Your task to perform on an android device: turn pop-ups on in chrome Image 0: 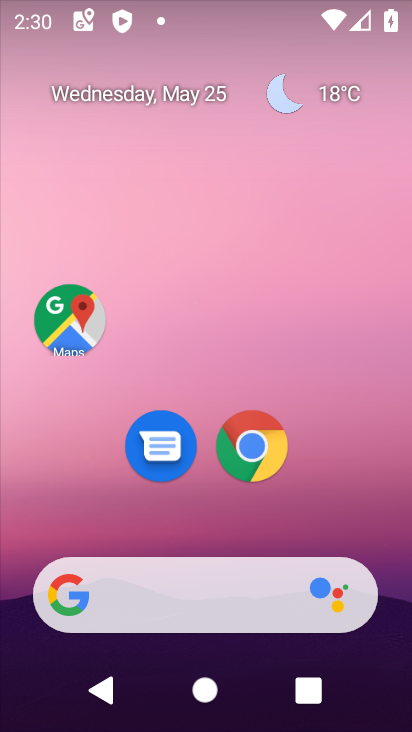
Step 0: click (266, 462)
Your task to perform on an android device: turn pop-ups on in chrome Image 1: 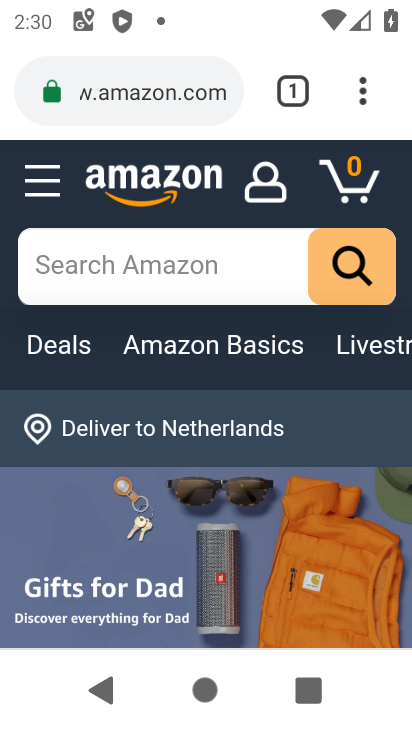
Step 1: click (355, 85)
Your task to perform on an android device: turn pop-ups on in chrome Image 2: 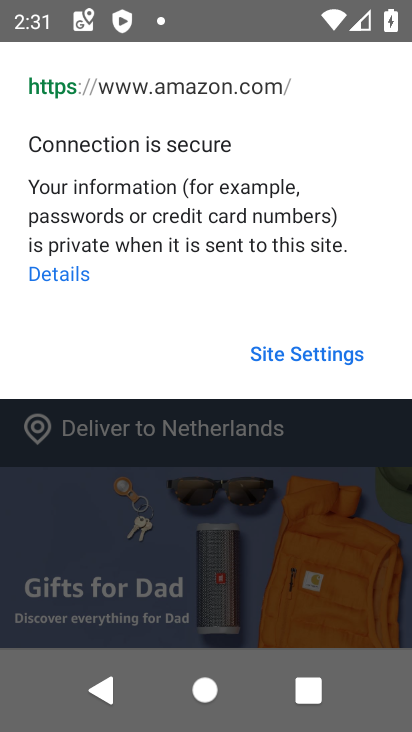
Step 2: click (314, 510)
Your task to perform on an android device: turn pop-ups on in chrome Image 3: 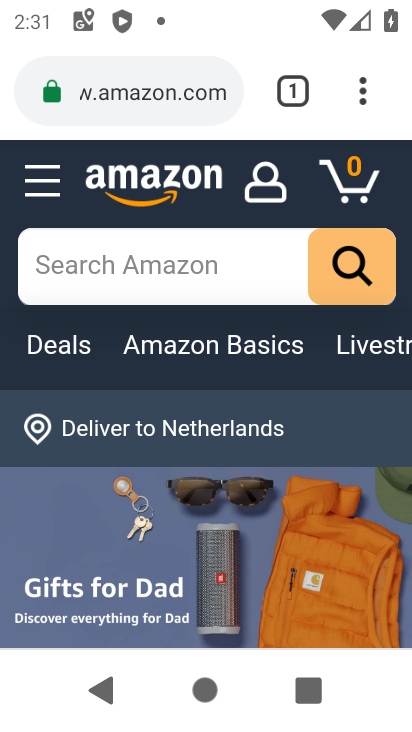
Step 3: drag from (369, 86) to (134, 487)
Your task to perform on an android device: turn pop-ups on in chrome Image 4: 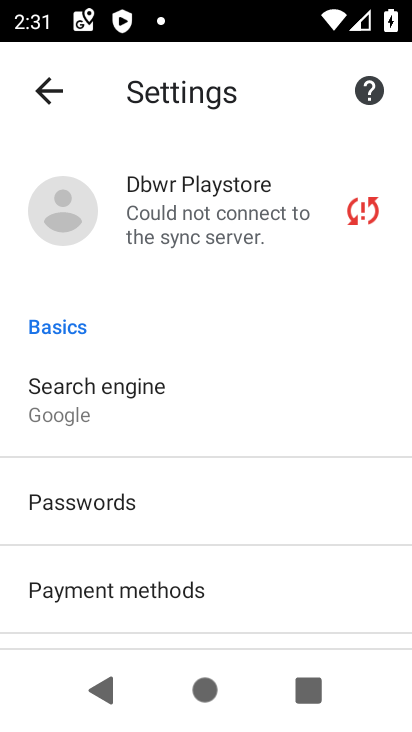
Step 4: drag from (134, 487) to (113, 185)
Your task to perform on an android device: turn pop-ups on in chrome Image 5: 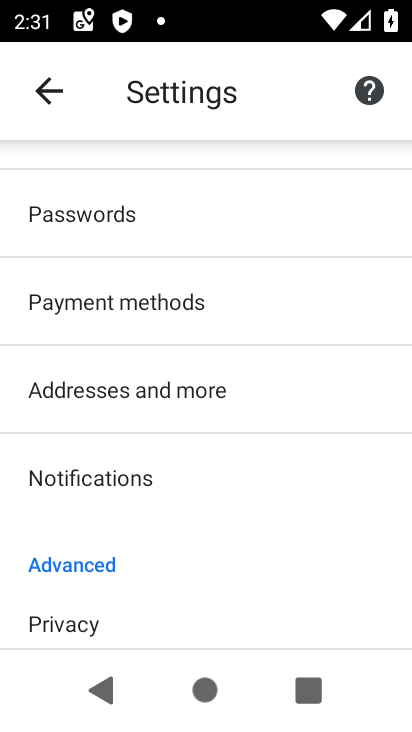
Step 5: drag from (231, 565) to (263, 160)
Your task to perform on an android device: turn pop-ups on in chrome Image 6: 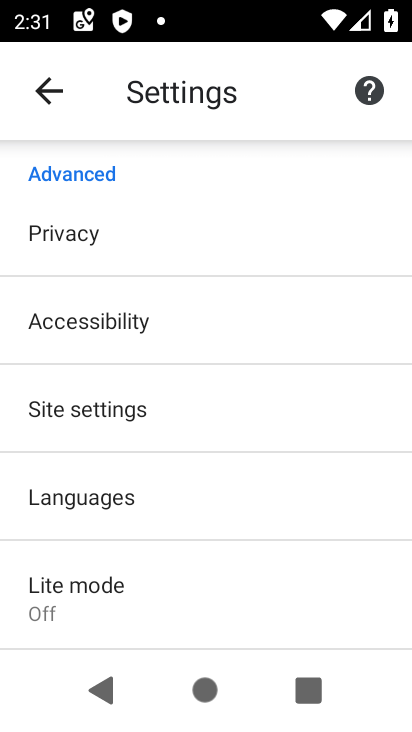
Step 6: click (162, 432)
Your task to perform on an android device: turn pop-ups on in chrome Image 7: 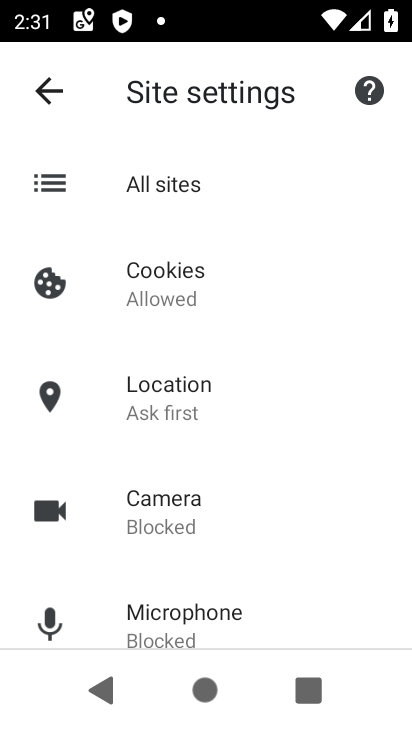
Step 7: drag from (211, 569) to (263, 26)
Your task to perform on an android device: turn pop-ups on in chrome Image 8: 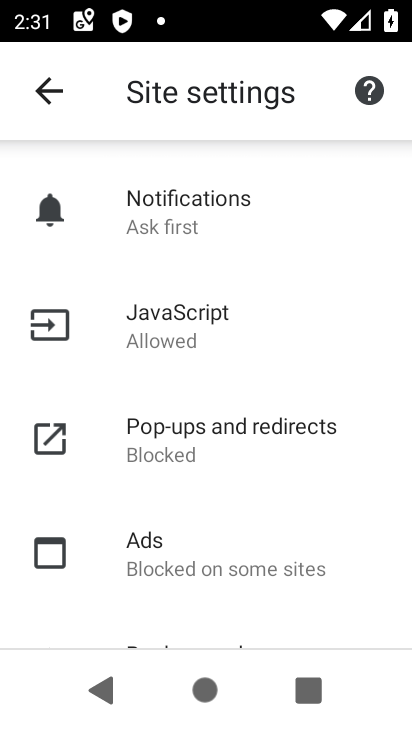
Step 8: click (201, 420)
Your task to perform on an android device: turn pop-ups on in chrome Image 9: 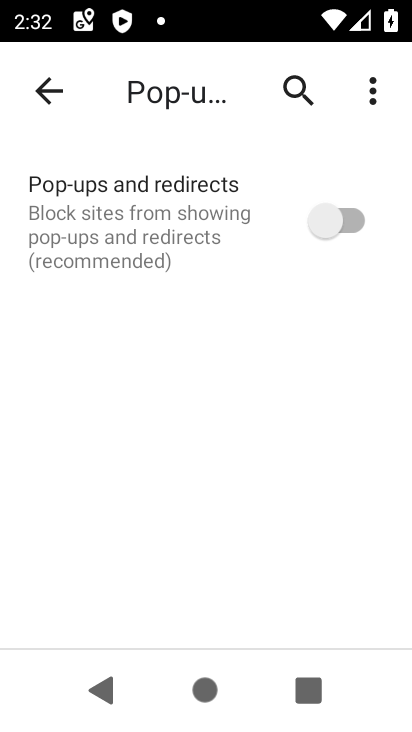
Step 9: click (345, 211)
Your task to perform on an android device: turn pop-ups on in chrome Image 10: 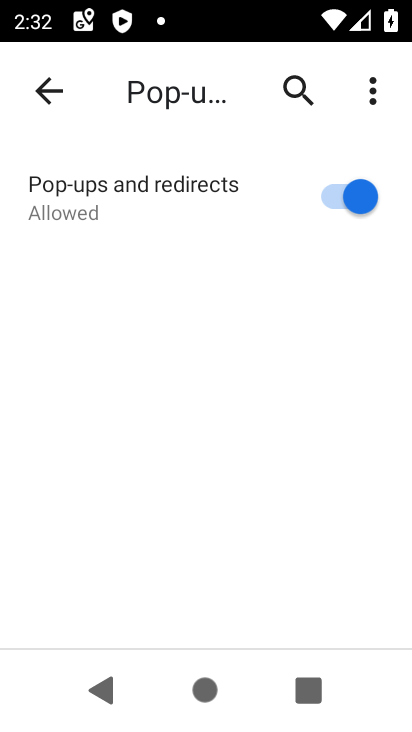
Step 10: task complete